Your task to perform on an android device: Search for the best lawnmowers on Lowes.com Image 0: 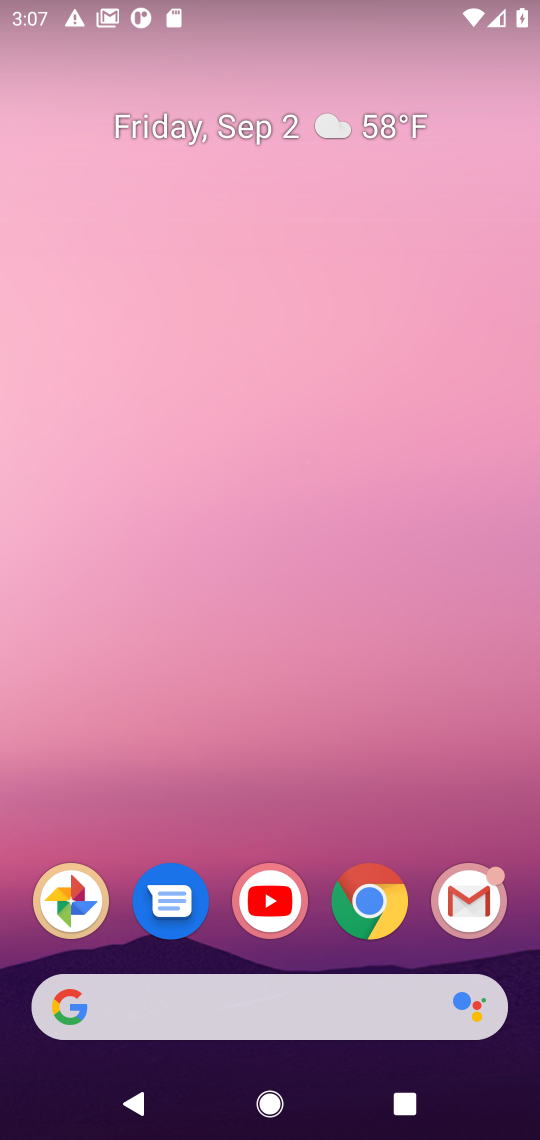
Step 0: drag from (418, 514) to (467, 87)
Your task to perform on an android device: Search for the best lawnmowers on Lowes.com Image 1: 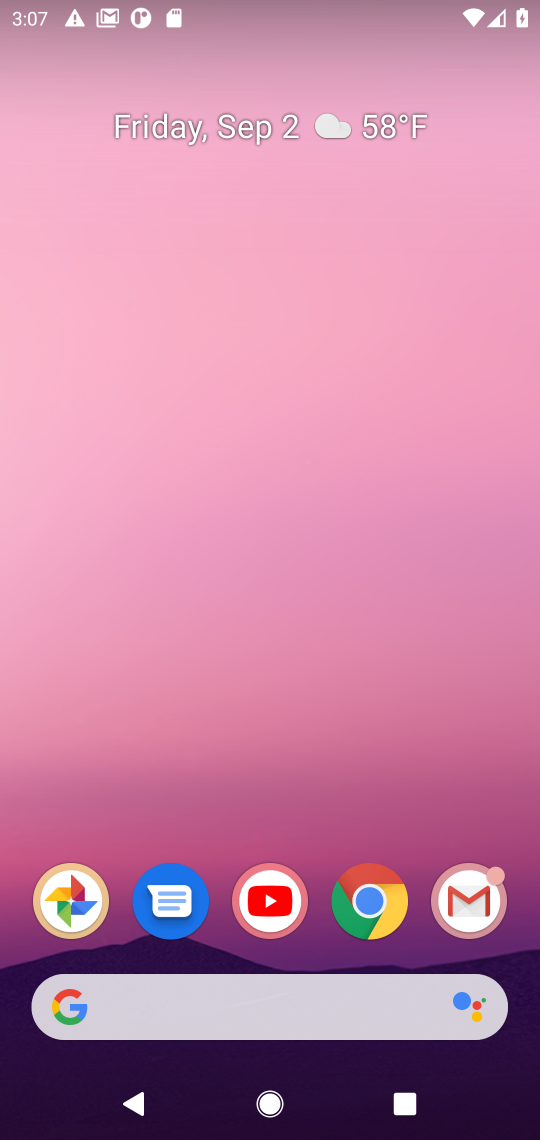
Step 1: drag from (394, 638) to (447, 118)
Your task to perform on an android device: Search for the best lawnmowers on Lowes.com Image 2: 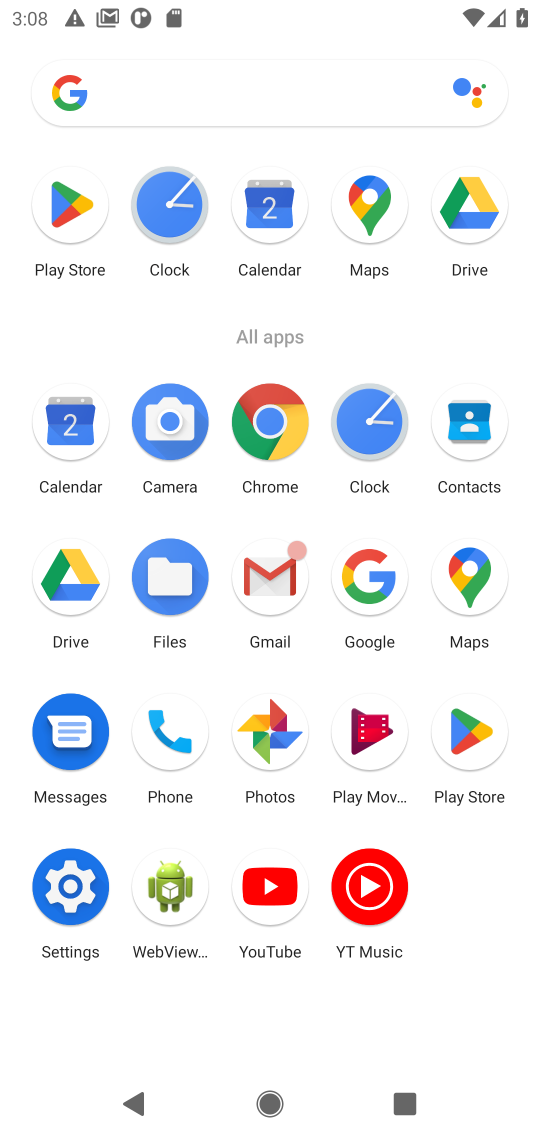
Step 2: click (278, 417)
Your task to perform on an android device: Search for the best lawnmowers on Lowes.com Image 3: 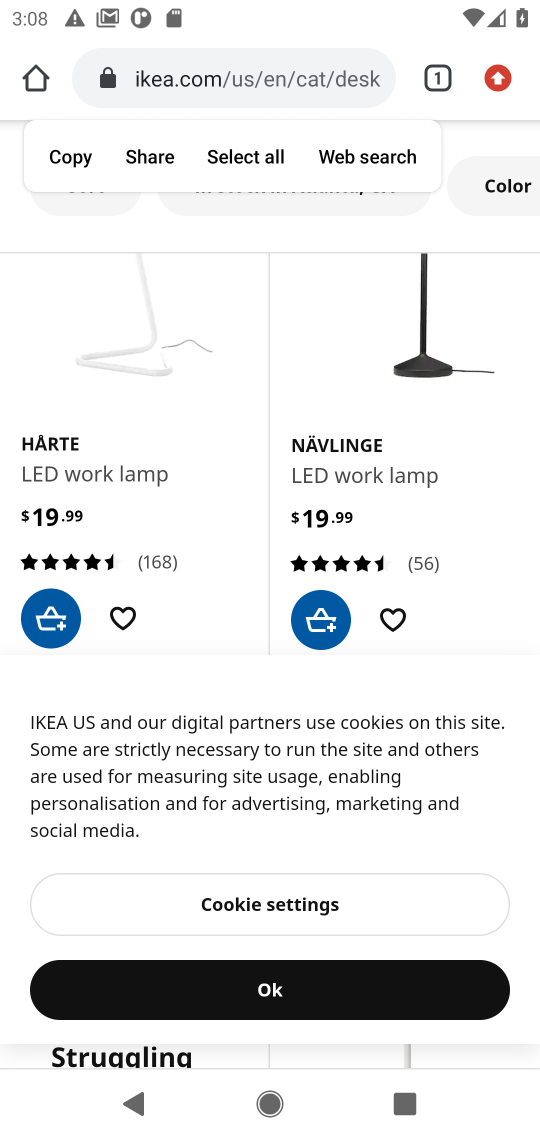
Step 3: click (305, 67)
Your task to perform on an android device: Search for the best lawnmowers on Lowes.com Image 4: 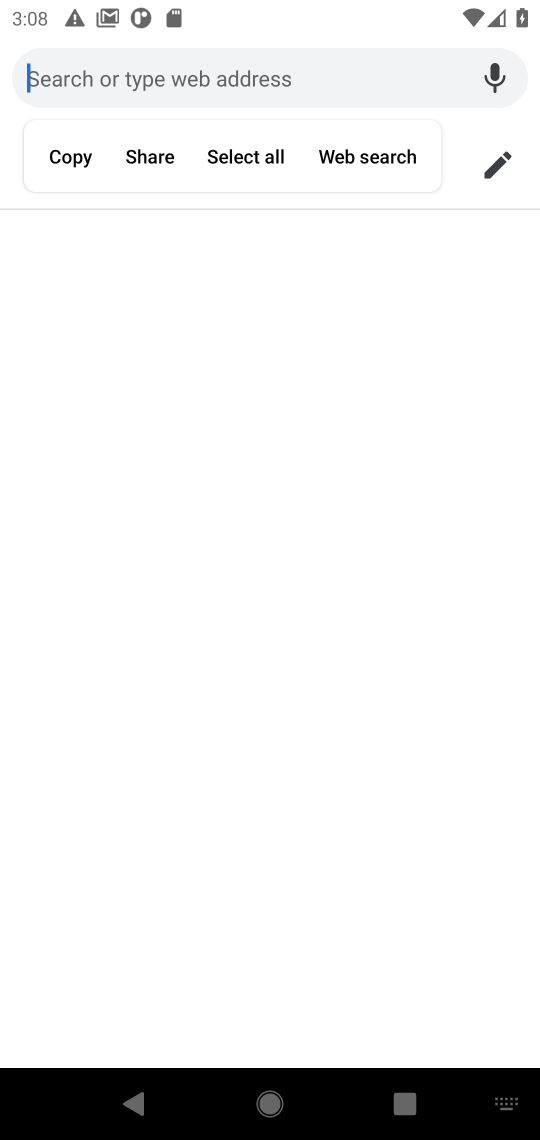
Step 4: type "best lawnmowers on Lowes.com"
Your task to perform on an android device: Search for the best lawnmowers on Lowes.com Image 5: 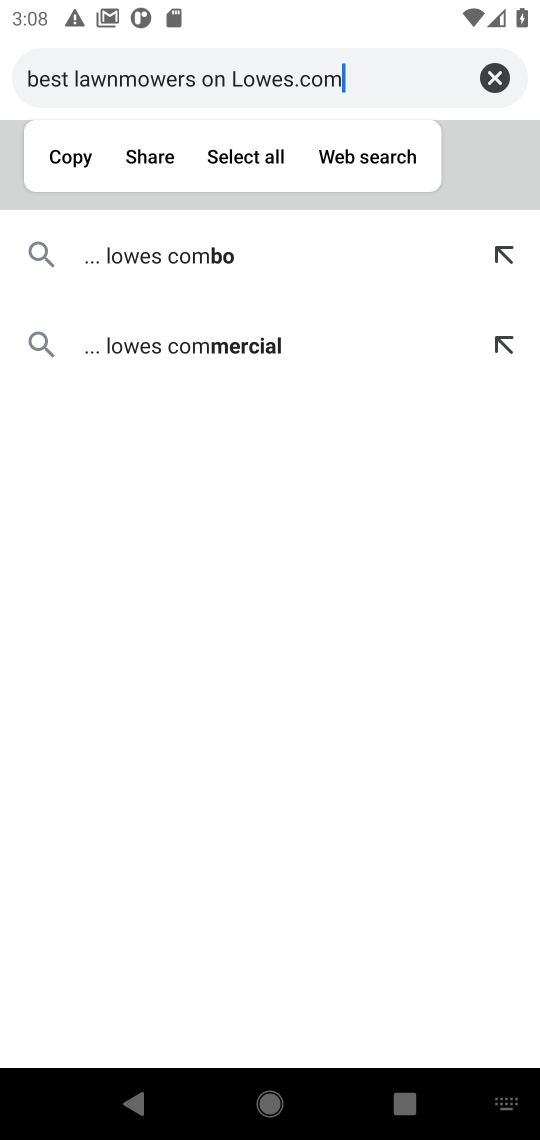
Step 5: press enter
Your task to perform on an android device: Search for the best lawnmowers on Lowes.com Image 6: 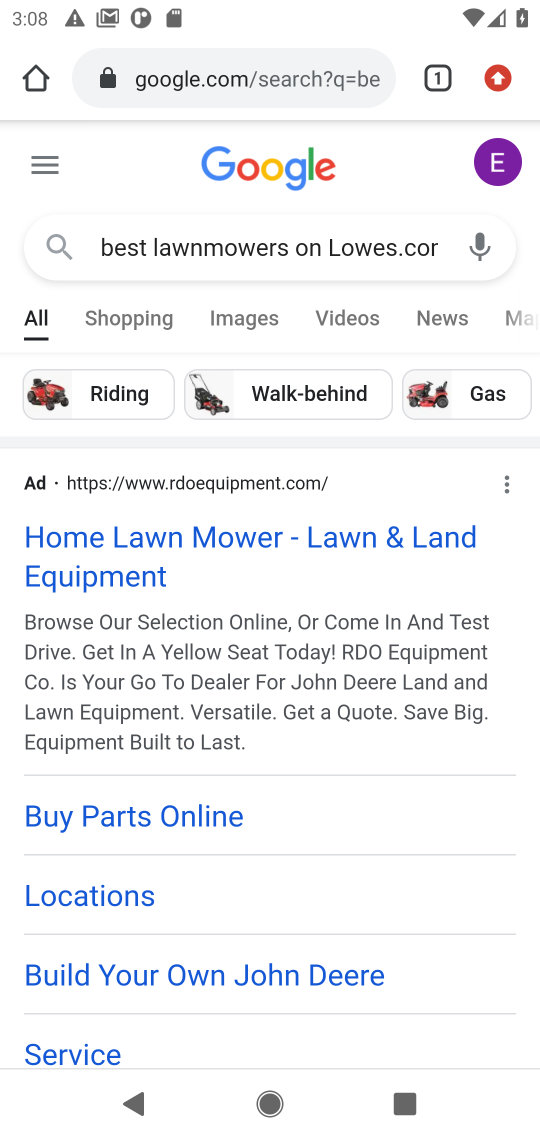
Step 6: drag from (301, 957) to (414, 14)
Your task to perform on an android device: Search for the best lawnmowers on Lowes.com Image 7: 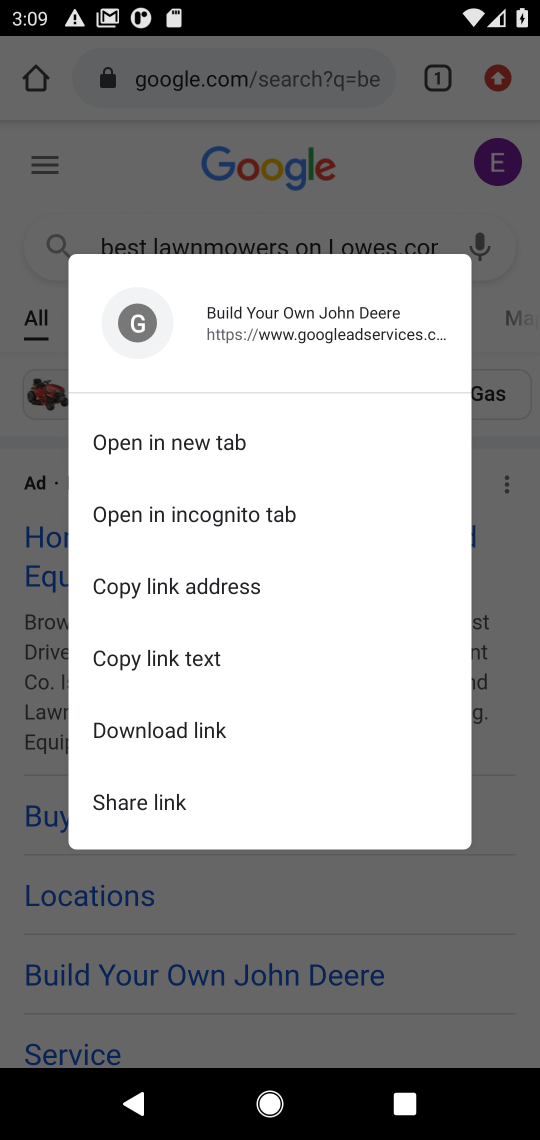
Step 7: click (280, 163)
Your task to perform on an android device: Search for the best lawnmowers on Lowes.com Image 8: 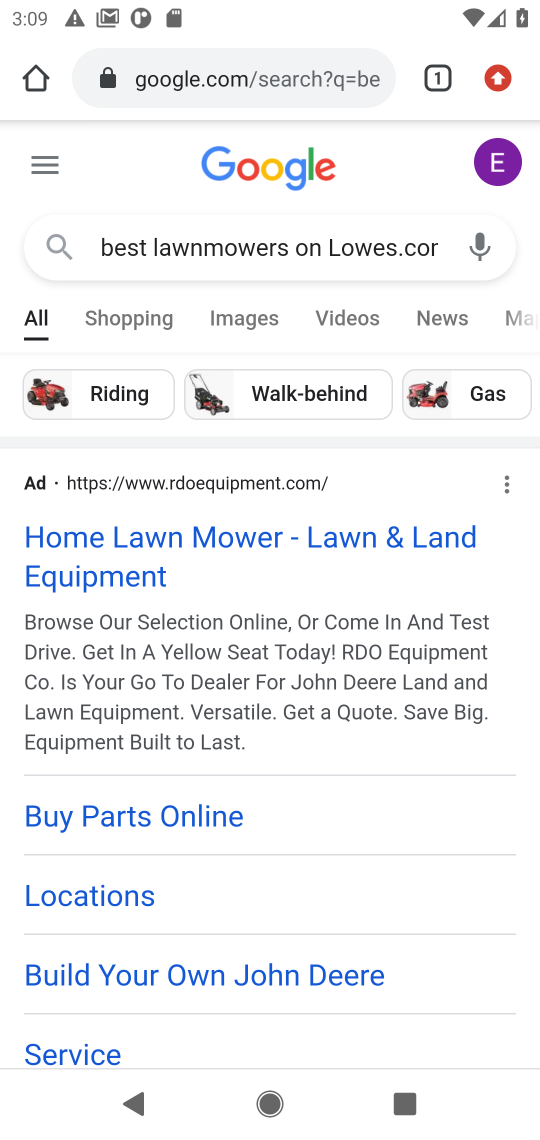
Step 8: drag from (282, 835) to (316, 323)
Your task to perform on an android device: Search for the best lawnmowers on Lowes.com Image 9: 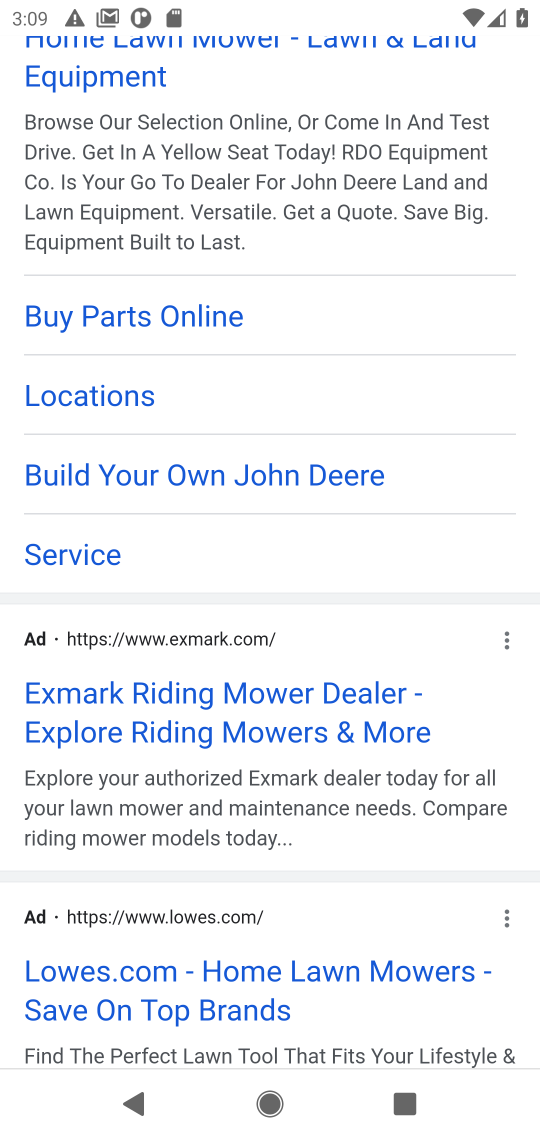
Step 9: drag from (379, 767) to (508, 244)
Your task to perform on an android device: Search for the best lawnmowers on Lowes.com Image 10: 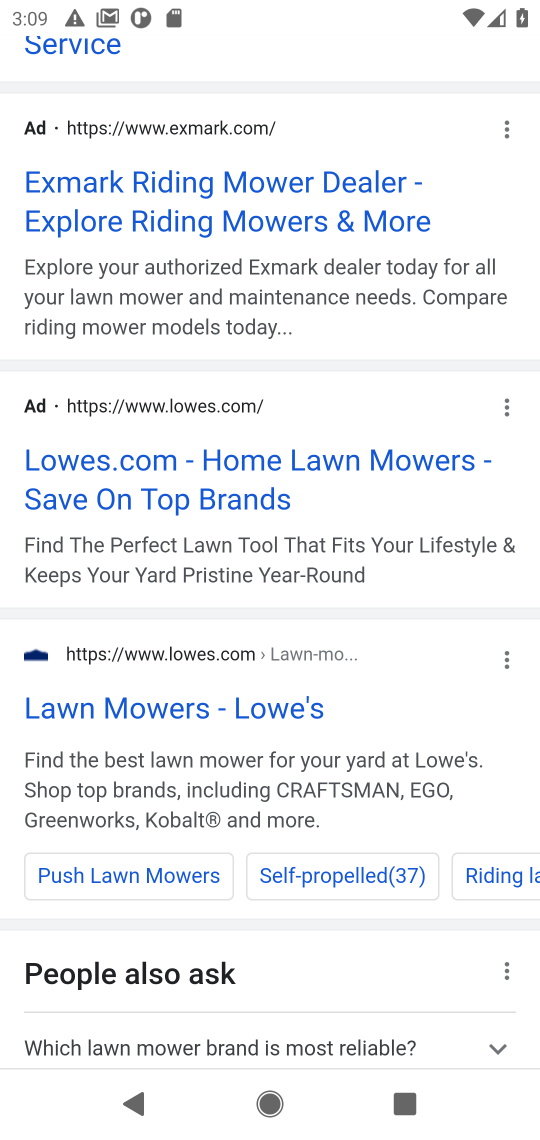
Step 10: click (194, 700)
Your task to perform on an android device: Search for the best lawnmowers on Lowes.com Image 11: 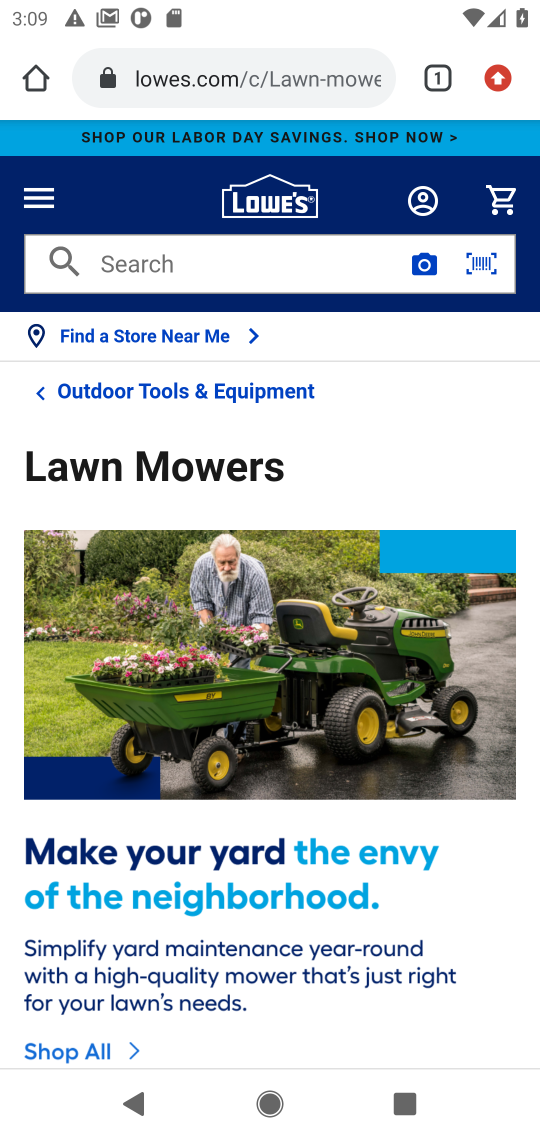
Step 11: task complete